Your task to perform on an android device: change the clock style Image 0: 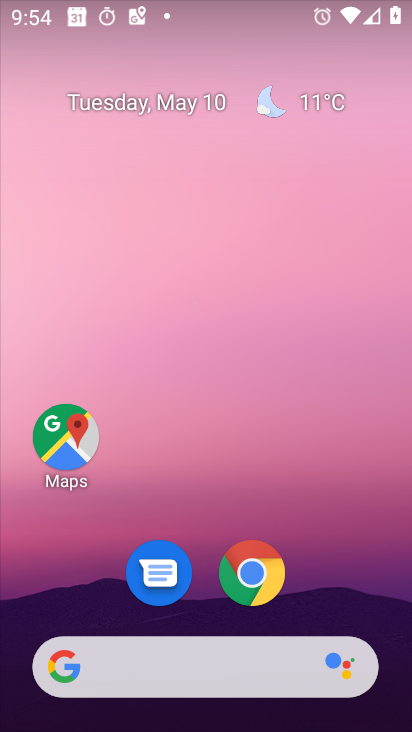
Step 0: drag from (357, 607) to (347, 79)
Your task to perform on an android device: change the clock style Image 1: 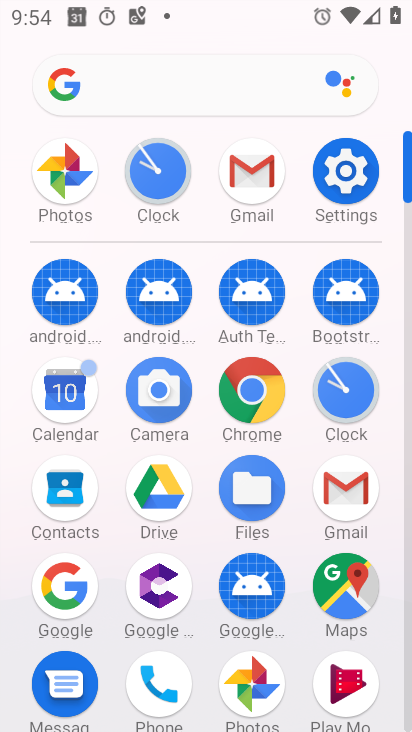
Step 1: click (157, 169)
Your task to perform on an android device: change the clock style Image 2: 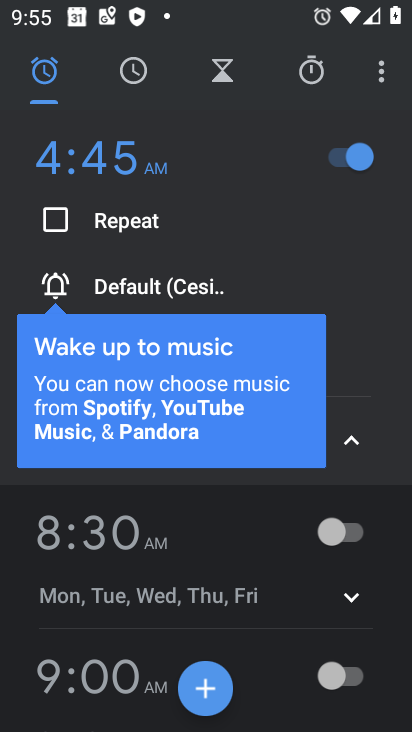
Step 2: click (377, 75)
Your task to perform on an android device: change the clock style Image 3: 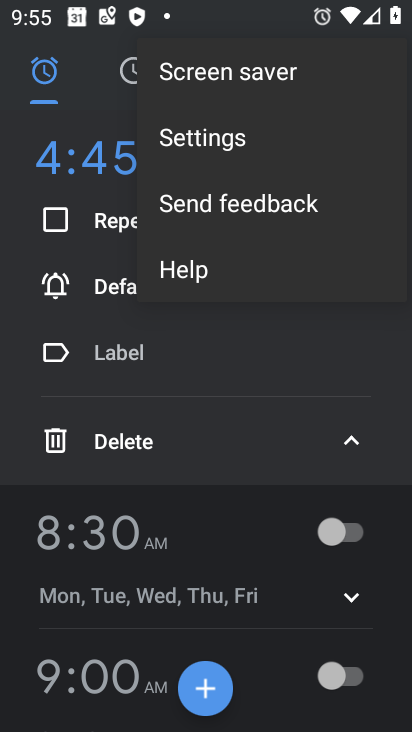
Step 3: click (236, 148)
Your task to perform on an android device: change the clock style Image 4: 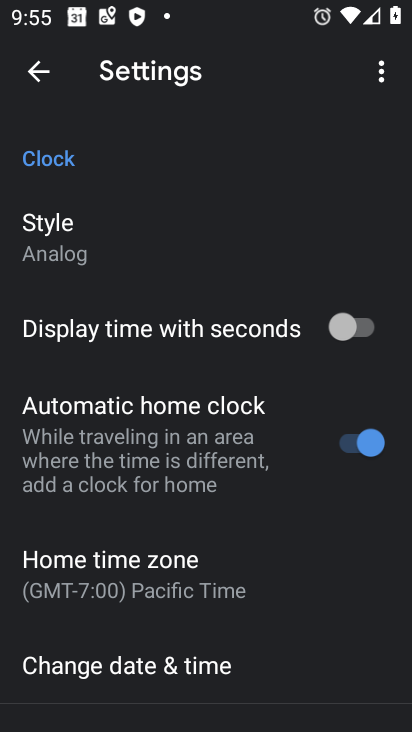
Step 4: click (45, 255)
Your task to perform on an android device: change the clock style Image 5: 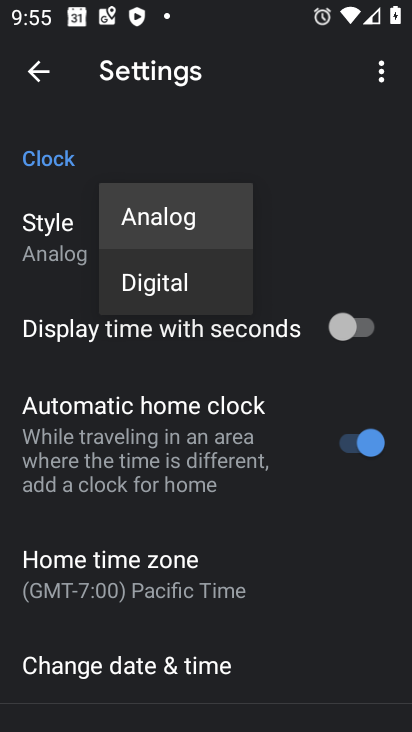
Step 5: click (135, 284)
Your task to perform on an android device: change the clock style Image 6: 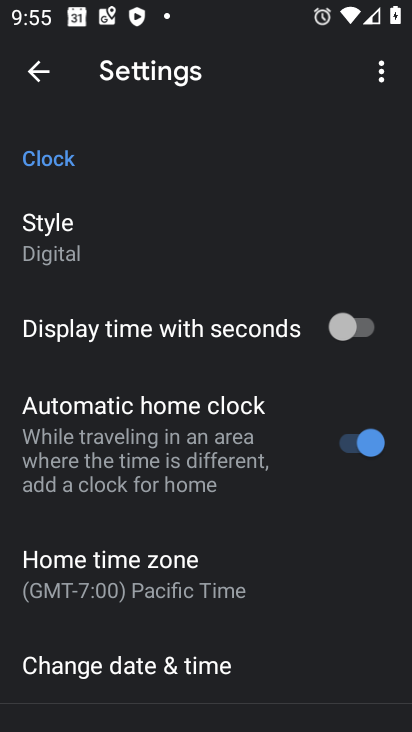
Step 6: task complete